Your task to perform on an android device: open the mobile data screen to see how much data has been used Image 0: 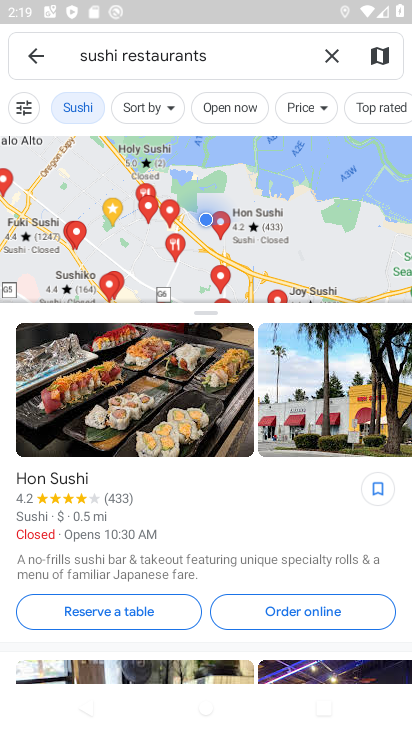
Step 0: press home button
Your task to perform on an android device: open the mobile data screen to see how much data has been used Image 1: 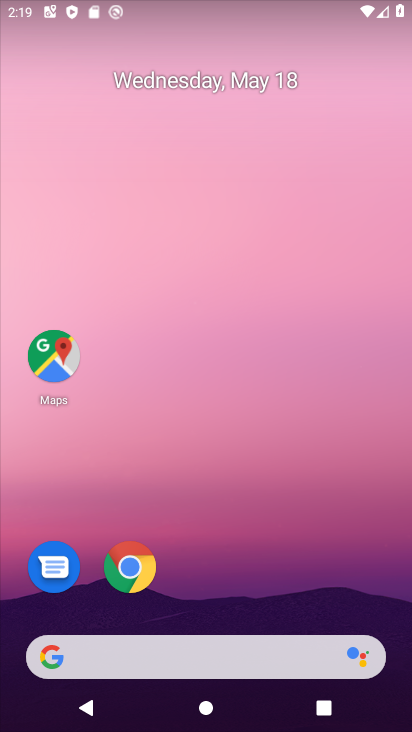
Step 1: drag from (258, 528) to (196, 214)
Your task to perform on an android device: open the mobile data screen to see how much data has been used Image 2: 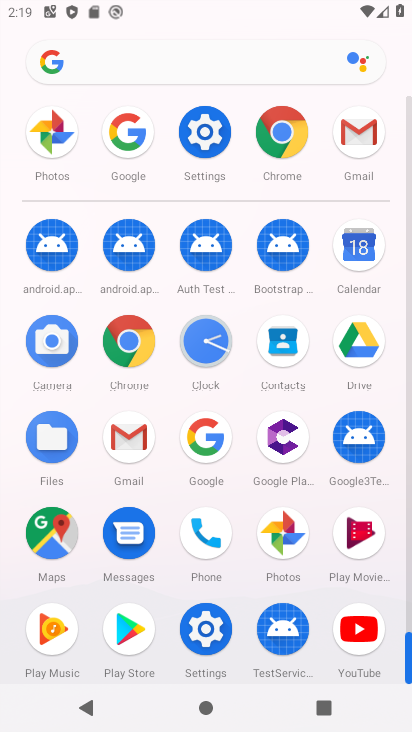
Step 2: click (214, 130)
Your task to perform on an android device: open the mobile data screen to see how much data has been used Image 3: 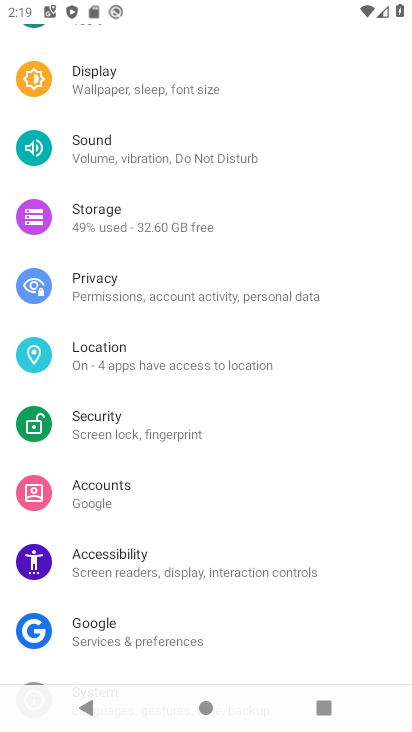
Step 3: drag from (177, 109) to (169, 492)
Your task to perform on an android device: open the mobile data screen to see how much data has been used Image 4: 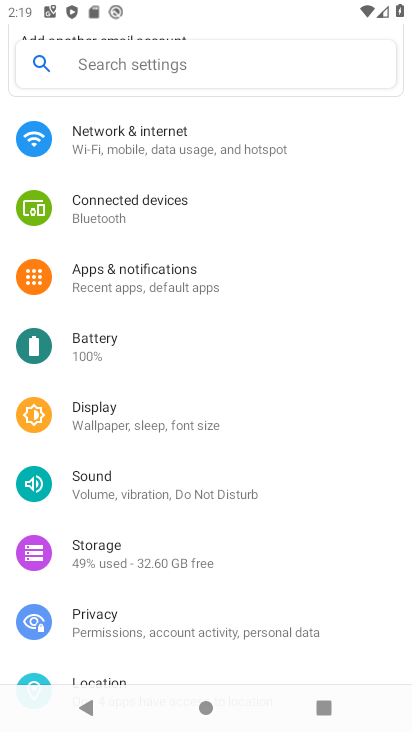
Step 4: click (165, 144)
Your task to perform on an android device: open the mobile data screen to see how much data has been used Image 5: 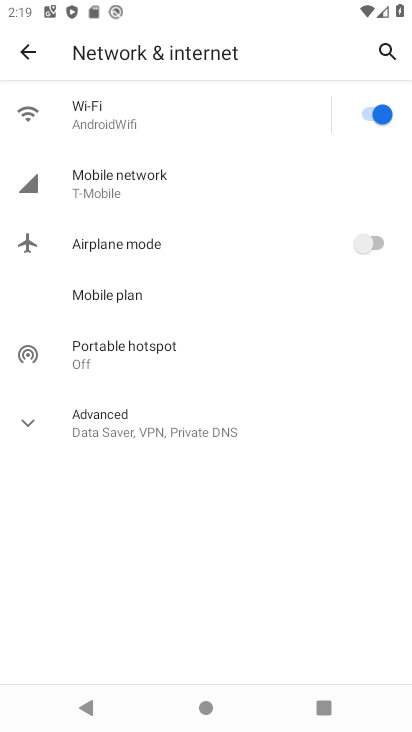
Step 5: click (139, 185)
Your task to perform on an android device: open the mobile data screen to see how much data has been used Image 6: 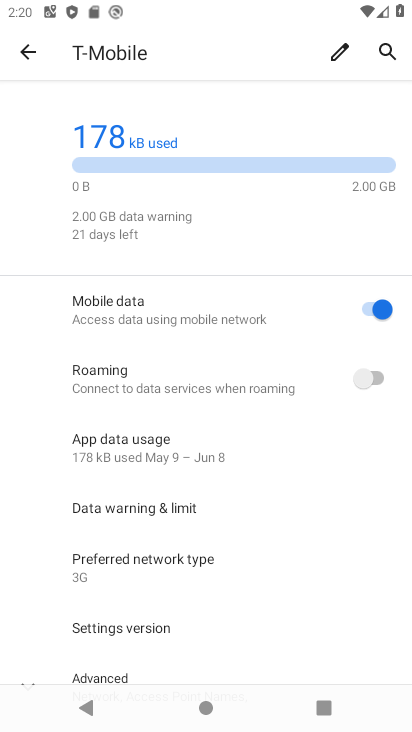
Step 6: click (211, 449)
Your task to perform on an android device: open the mobile data screen to see how much data has been used Image 7: 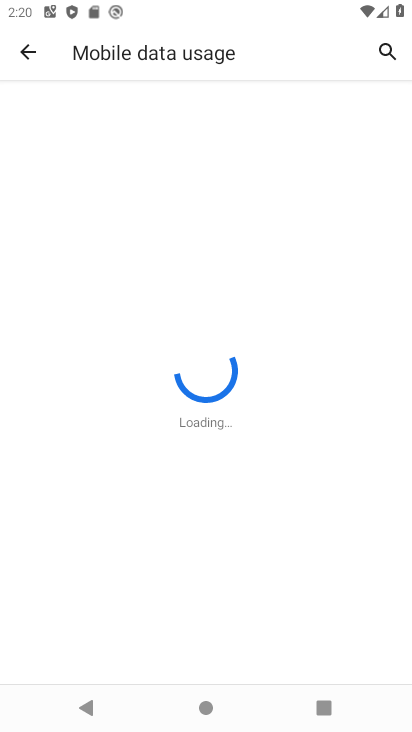
Step 7: task complete